Your task to perform on an android device: Open accessibility settings Image 0: 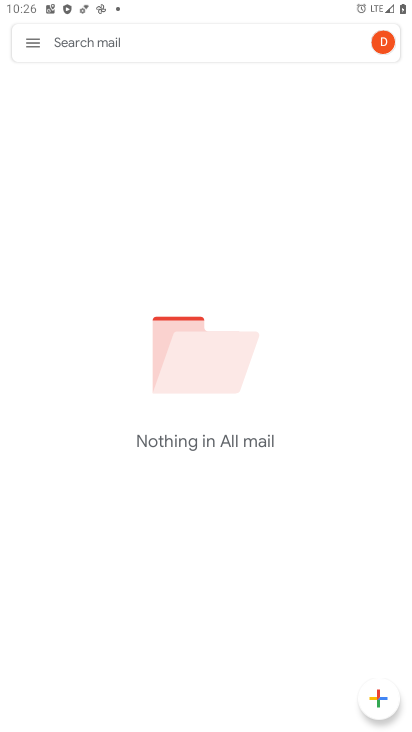
Step 0: press home button
Your task to perform on an android device: Open accessibility settings Image 1: 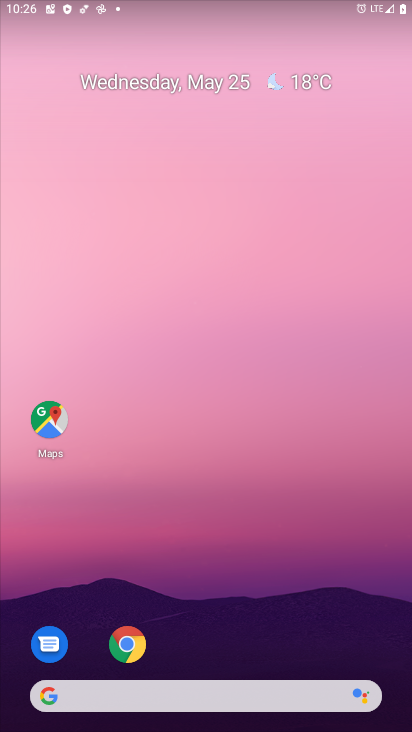
Step 1: drag from (210, 654) to (251, 167)
Your task to perform on an android device: Open accessibility settings Image 2: 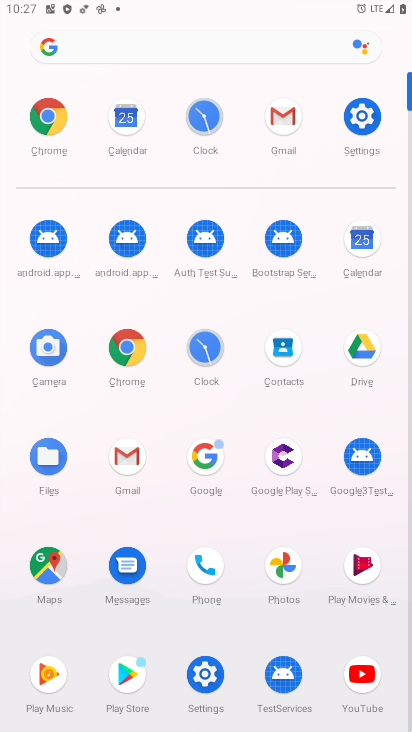
Step 2: click (354, 109)
Your task to perform on an android device: Open accessibility settings Image 3: 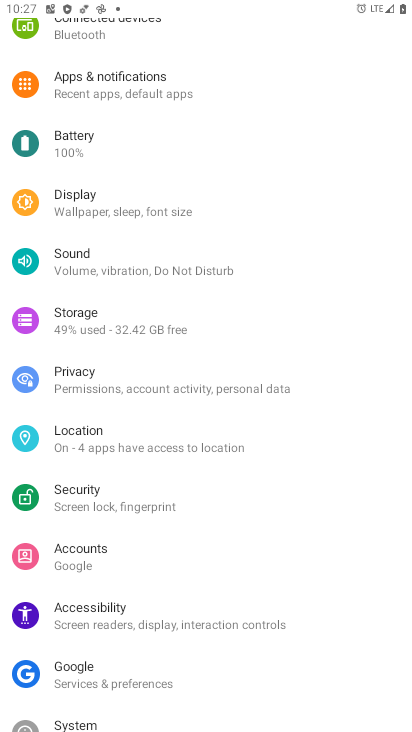
Step 3: click (137, 608)
Your task to perform on an android device: Open accessibility settings Image 4: 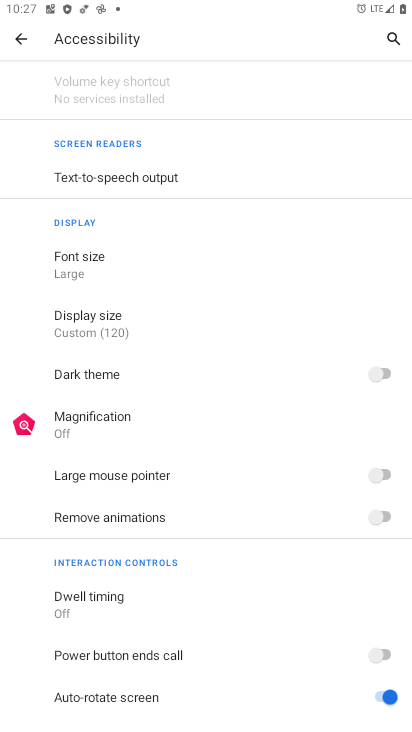
Step 4: task complete